Your task to perform on an android device: Open settings Image 0: 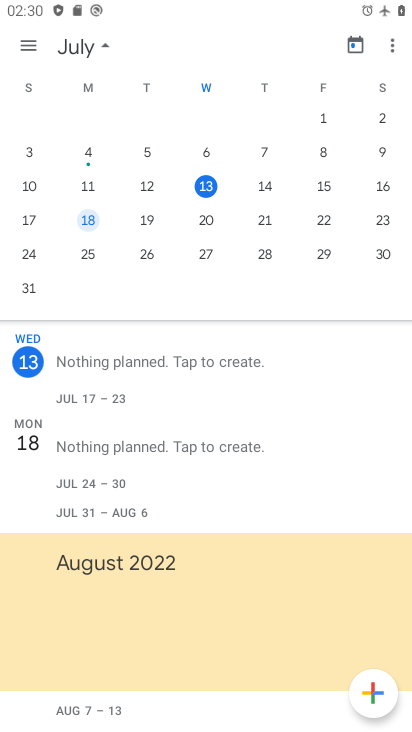
Step 0: press home button
Your task to perform on an android device: Open settings Image 1: 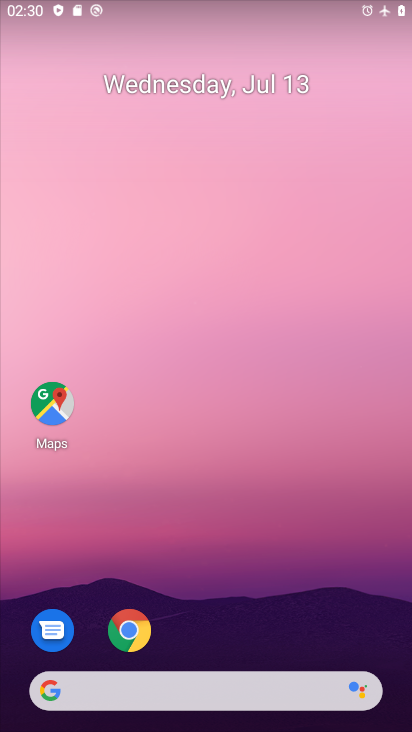
Step 1: drag from (214, 645) to (152, 243)
Your task to perform on an android device: Open settings Image 2: 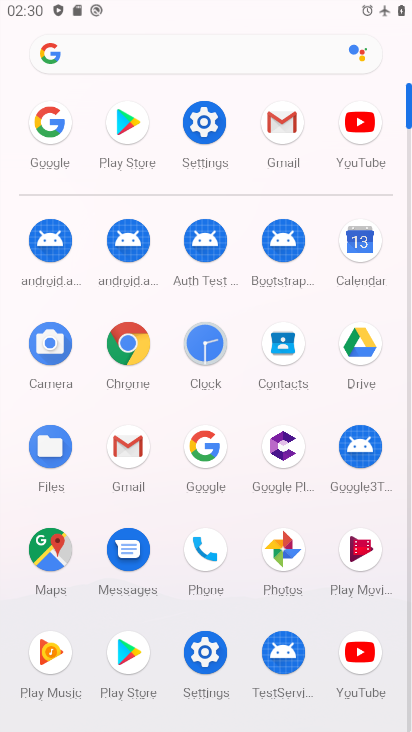
Step 2: click (219, 138)
Your task to perform on an android device: Open settings Image 3: 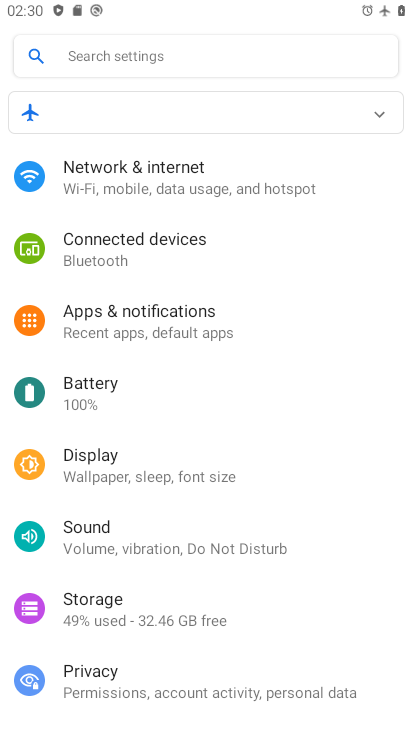
Step 3: task complete